Your task to perform on an android device: change keyboard looks Image 0: 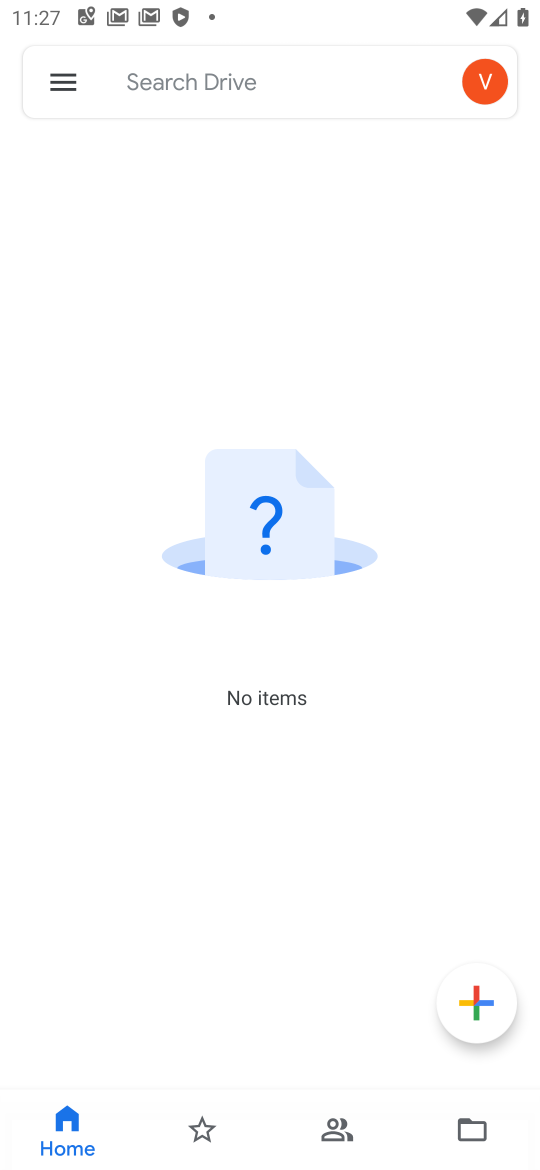
Step 0: press home button
Your task to perform on an android device: change keyboard looks Image 1: 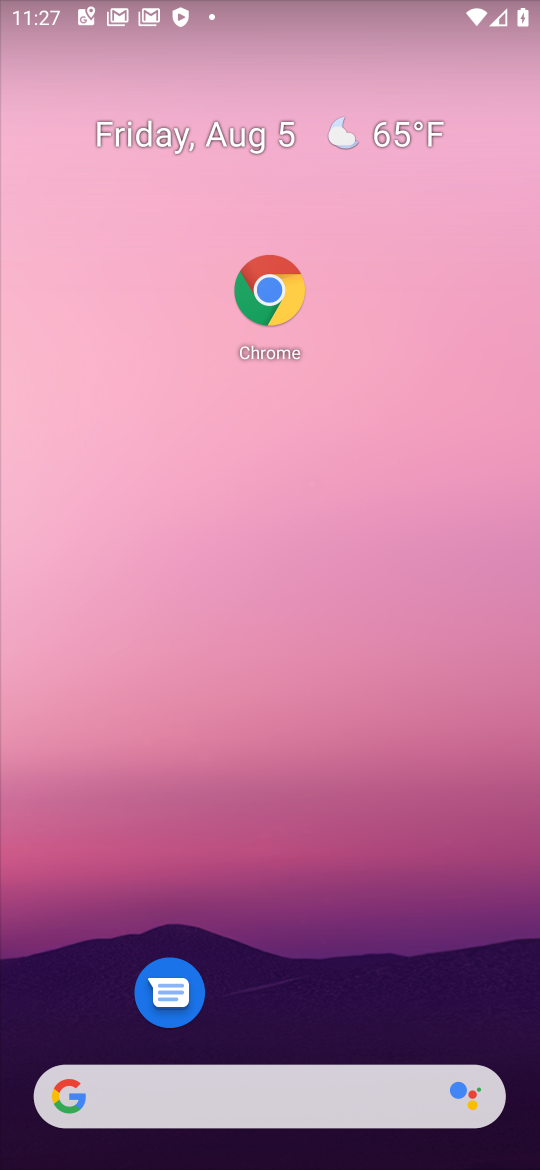
Step 1: drag from (290, 926) to (287, 16)
Your task to perform on an android device: change keyboard looks Image 2: 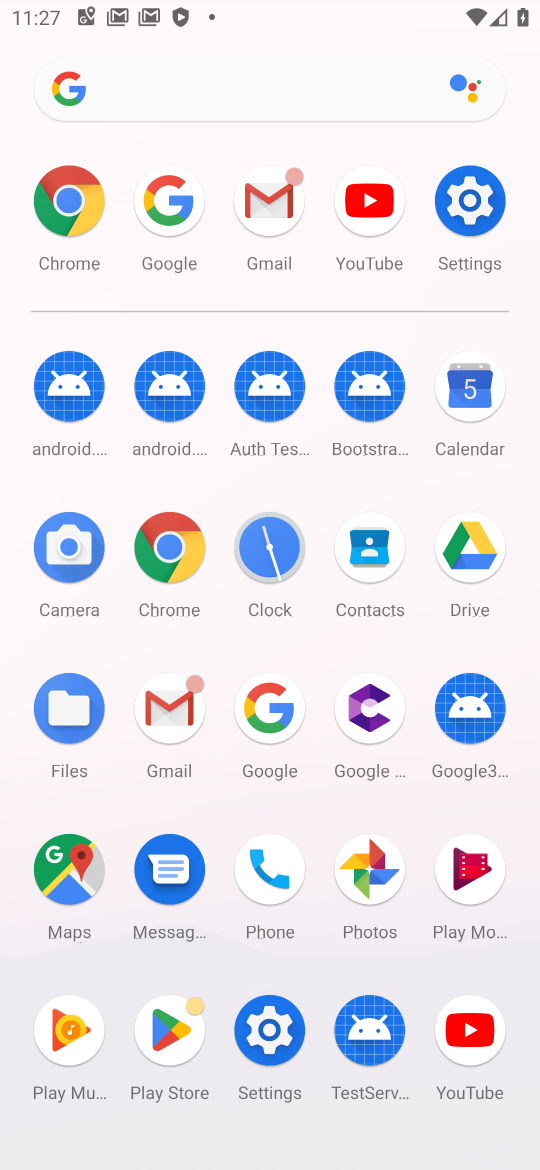
Step 2: click (447, 198)
Your task to perform on an android device: change keyboard looks Image 3: 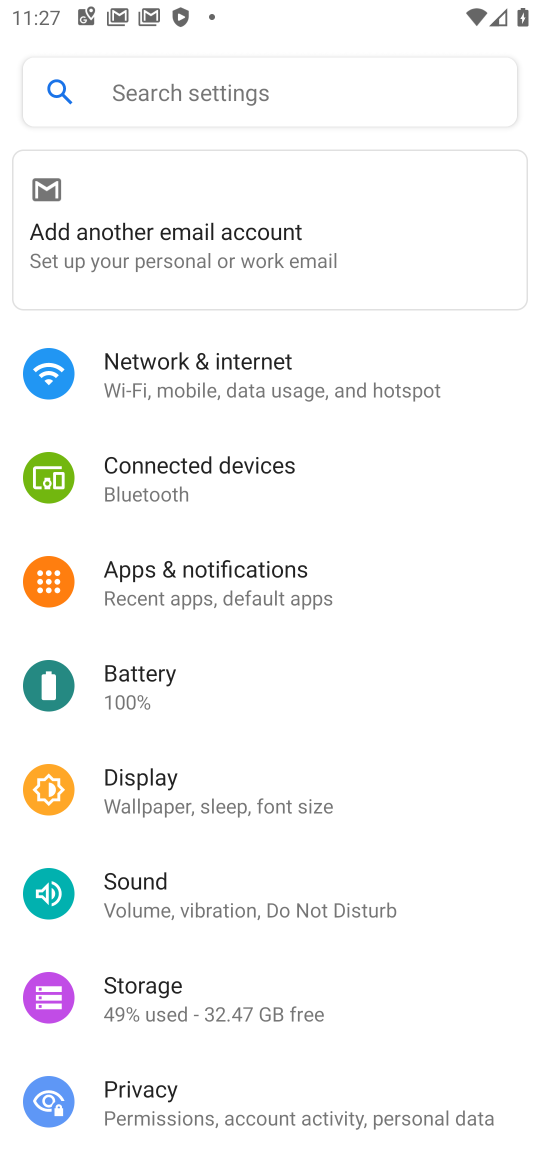
Step 3: drag from (301, 1093) to (119, 172)
Your task to perform on an android device: change keyboard looks Image 4: 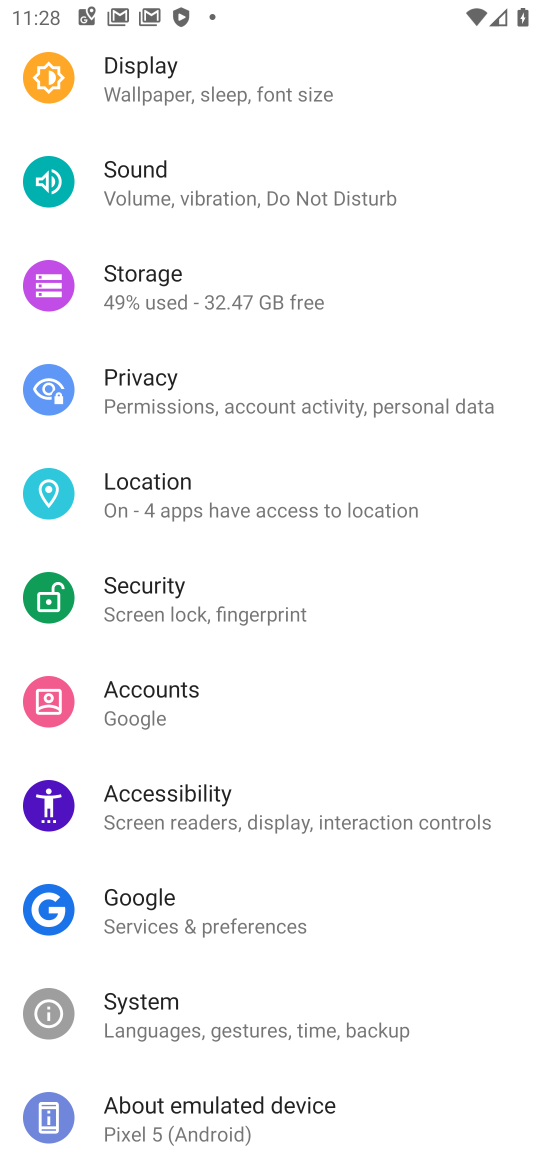
Step 4: drag from (115, 1056) to (133, 607)
Your task to perform on an android device: change keyboard looks Image 5: 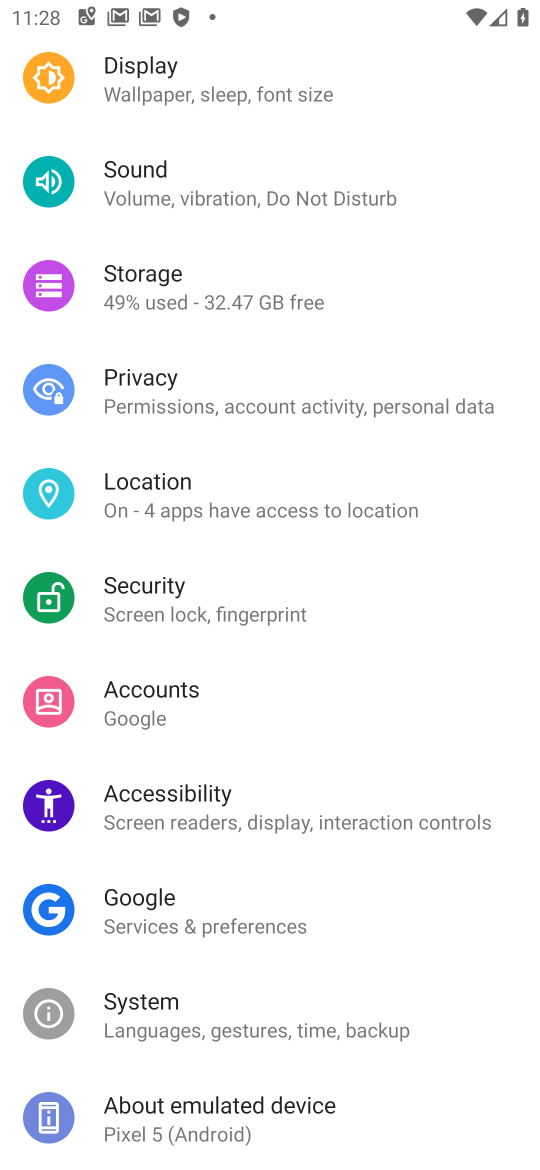
Step 5: click (241, 1030)
Your task to perform on an android device: change keyboard looks Image 6: 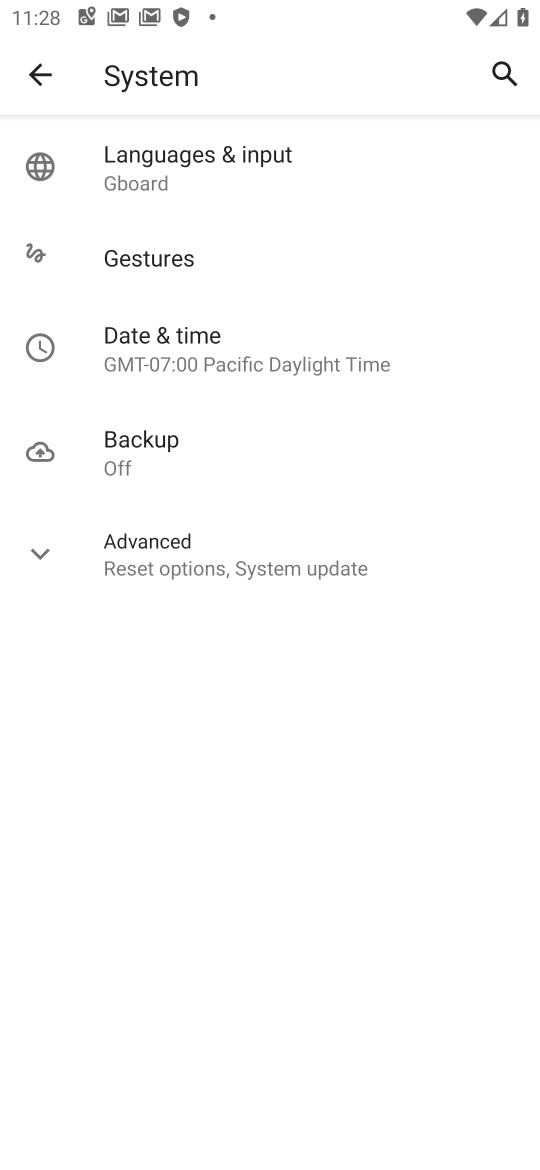
Step 6: click (116, 177)
Your task to perform on an android device: change keyboard looks Image 7: 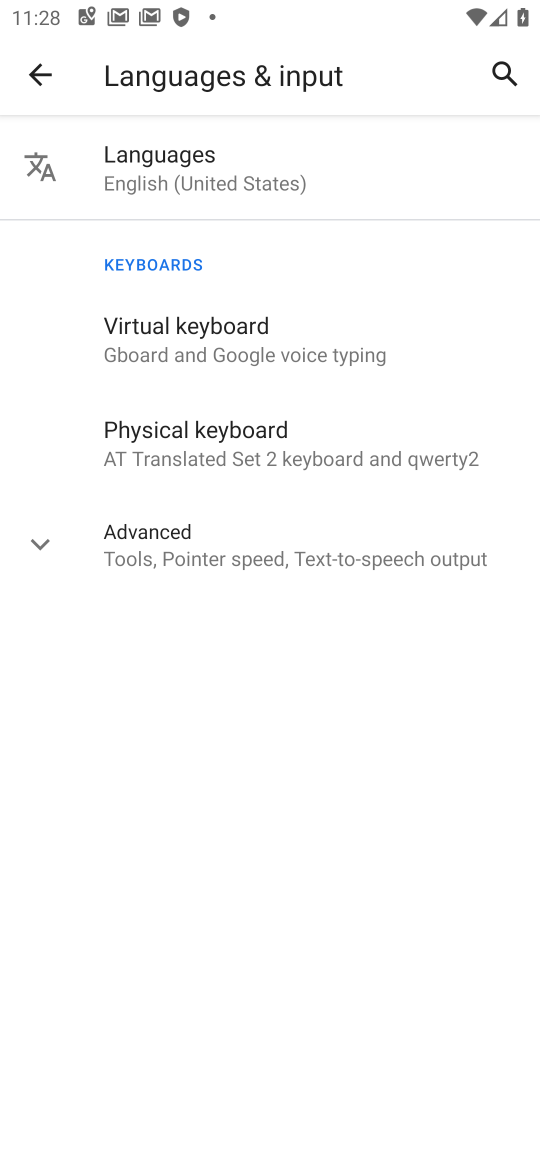
Step 7: click (157, 371)
Your task to perform on an android device: change keyboard looks Image 8: 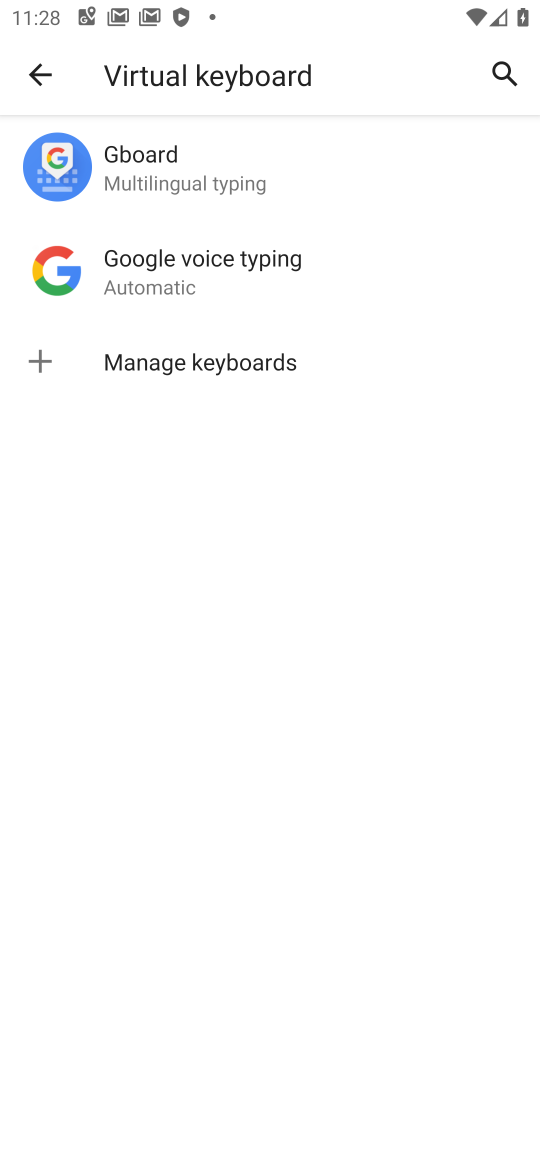
Step 8: click (195, 198)
Your task to perform on an android device: change keyboard looks Image 9: 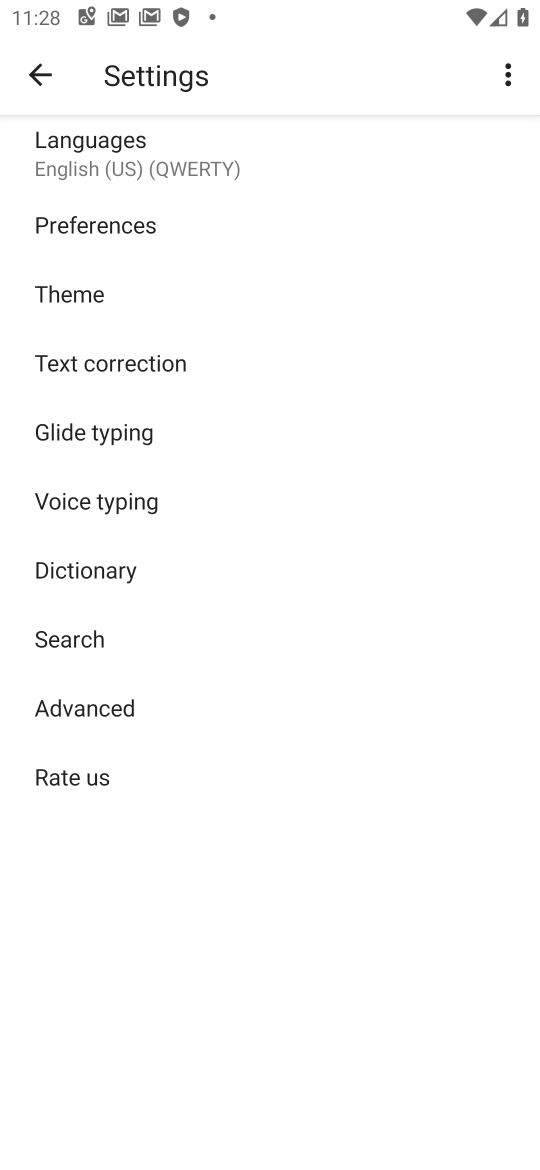
Step 9: click (167, 298)
Your task to perform on an android device: change keyboard looks Image 10: 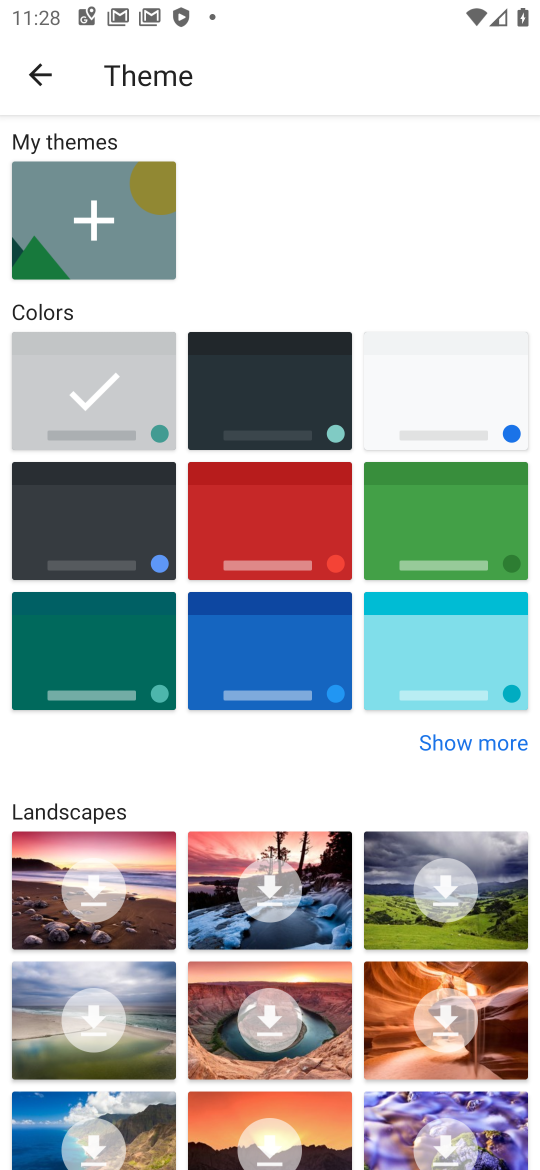
Step 10: click (280, 421)
Your task to perform on an android device: change keyboard looks Image 11: 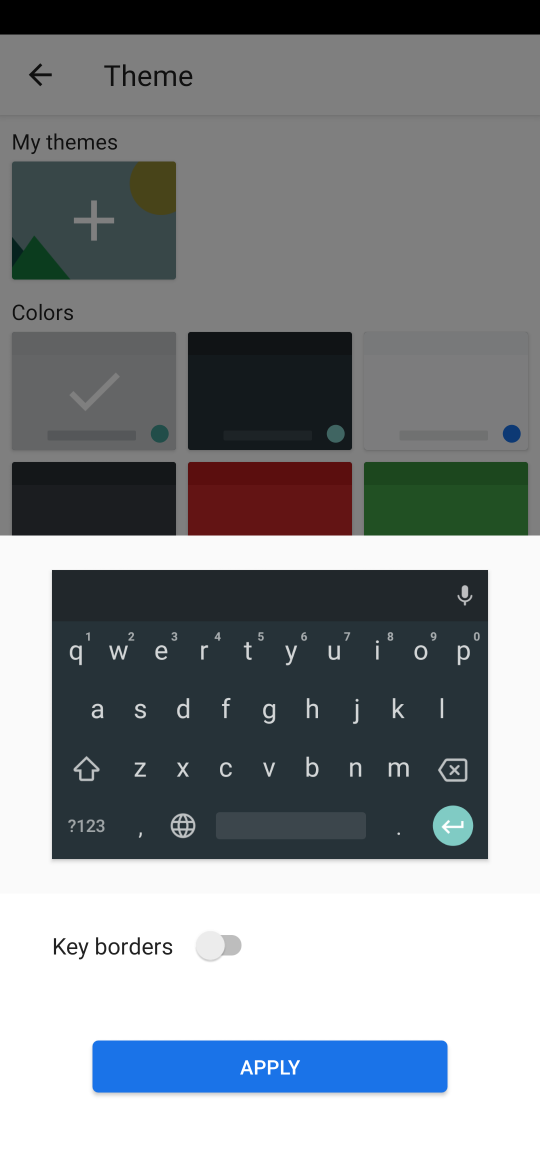
Step 11: click (279, 1073)
Your task to perform on an android device: change keyboard looks Image 12: 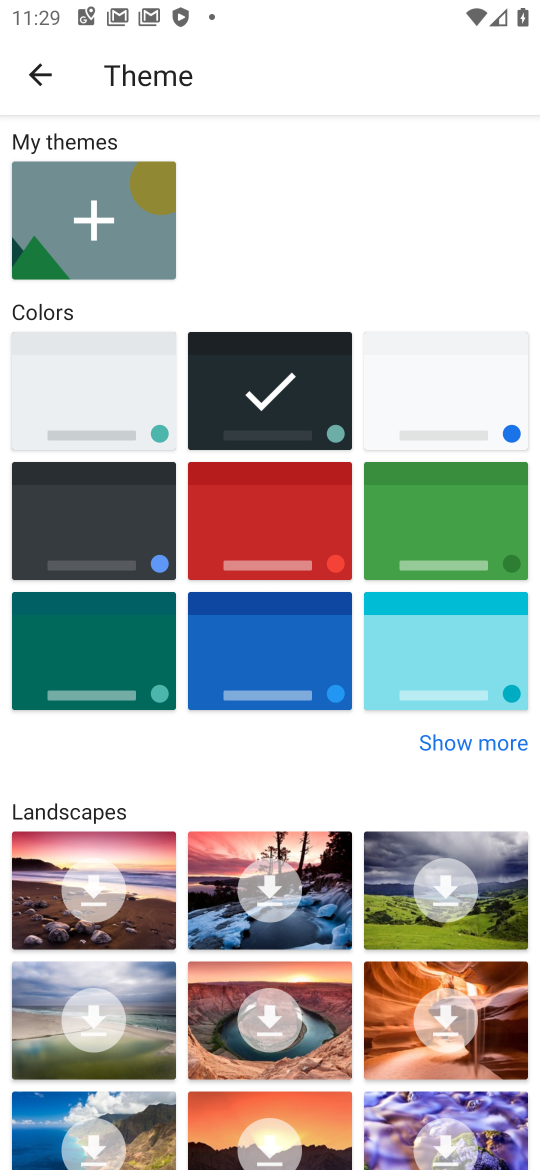
Step 12: task complete